Your task to perform on an android device: Open Yahoo.com Image 0: 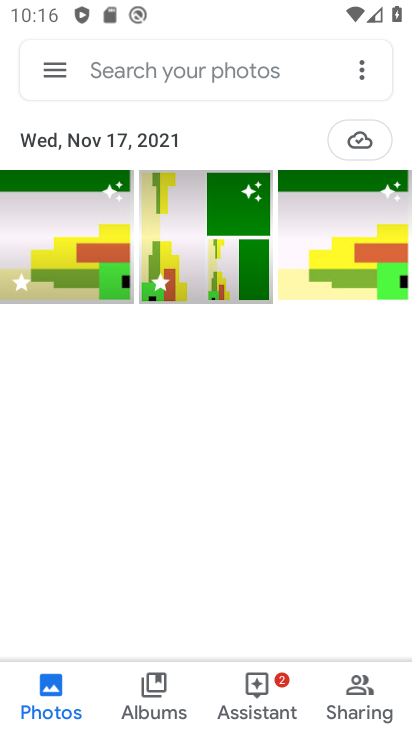
Step 0: press back button
Your task to perform on an android device: Open Yahoo.com Image 1: 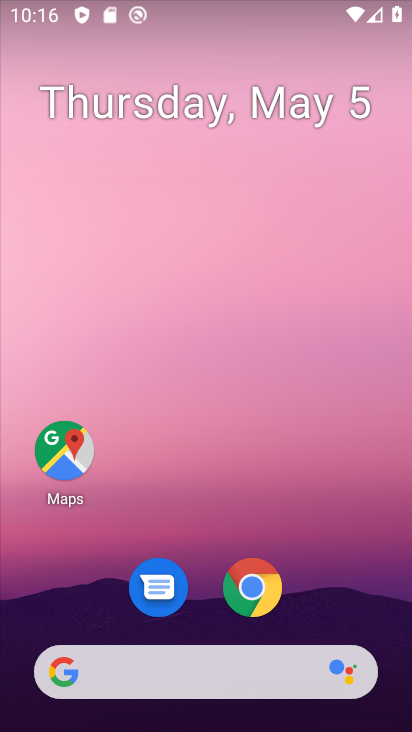
Step 1: drag from (297, 584) to (281, 27)
Your task to perform on an android device: Open Yahoo.com Image 2: 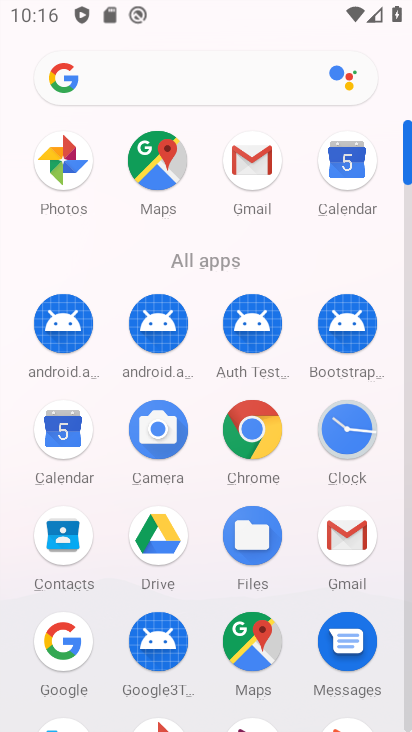
Step 2: click (253, 427)
Your task to perform on an android device: Open Yahoo.com Image 3: 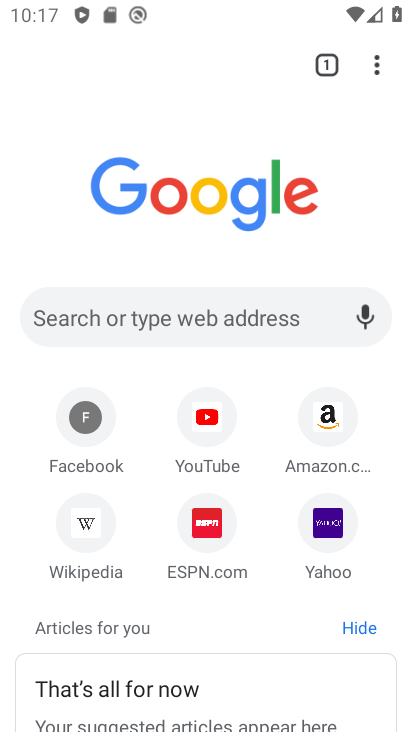
Step 3: click (180, 320)
Your task to perform on an android device: Open Yahoo.com Image 4: 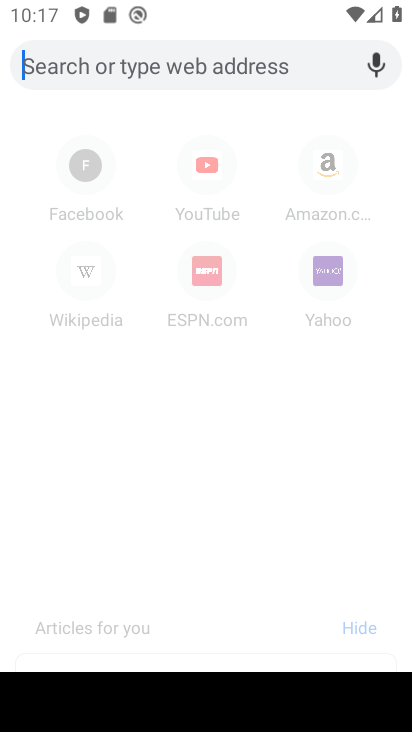
Step 4: type "Yahoo.com"
Your task to perform on an android device: Open Yahoo.com Image 5: 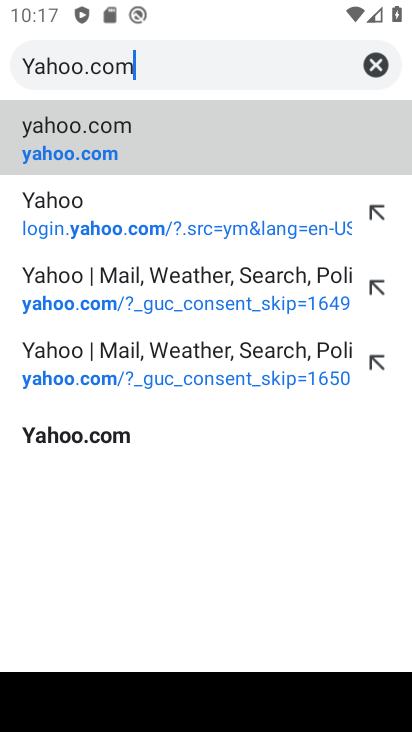
Step 5: type ""
Your task to perform on an android device: Open Yahoo.com Image 6: 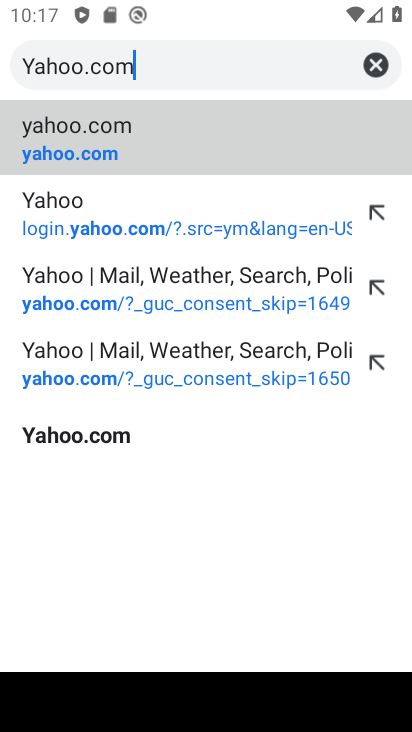
Step 6: click (137, 142)
Your task to perform on an android device: Open Yahoo.com Image 7: 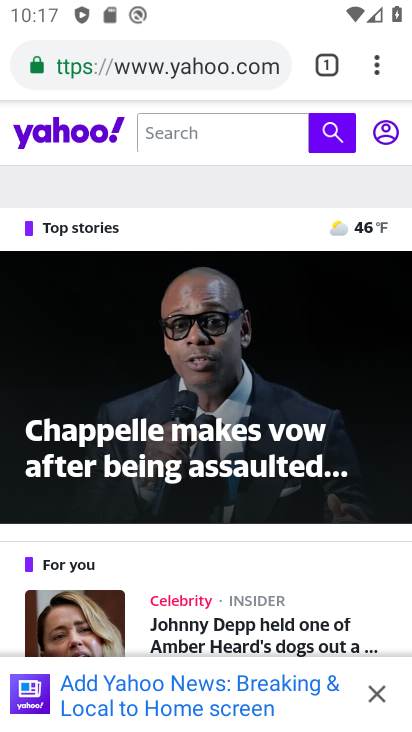
Step 7: task complete